Your task to perform on an android device: toggle airplane mode Image 0: 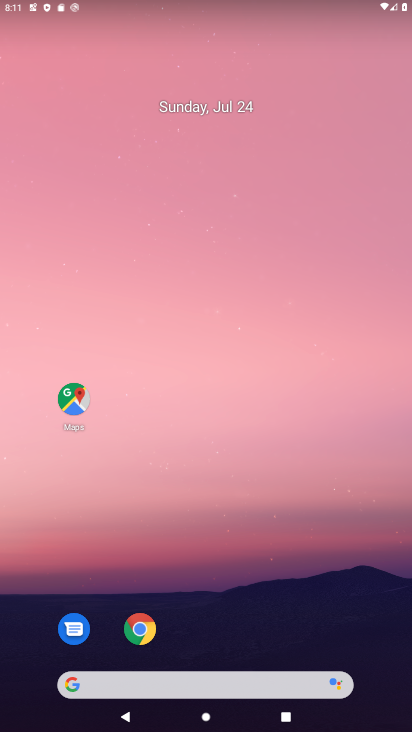
Step 0: drag from (254, 692) to (352, 145)
Your task to perform on an android device: toggle airplane mode Image 1: 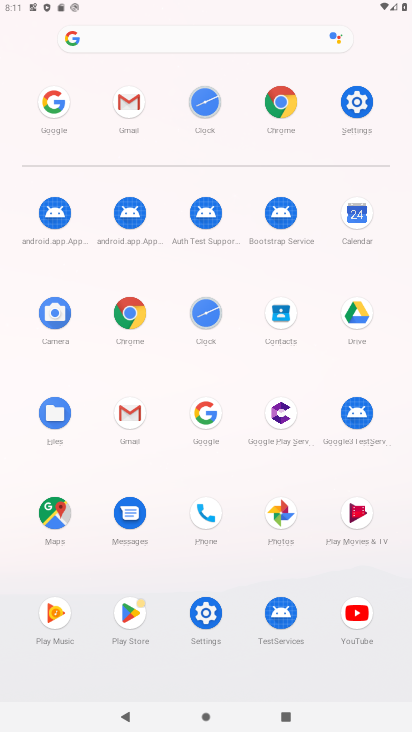
Step 1: click (347, 119)
Your task to perform on an android device: toggle airplane mode Image 2: 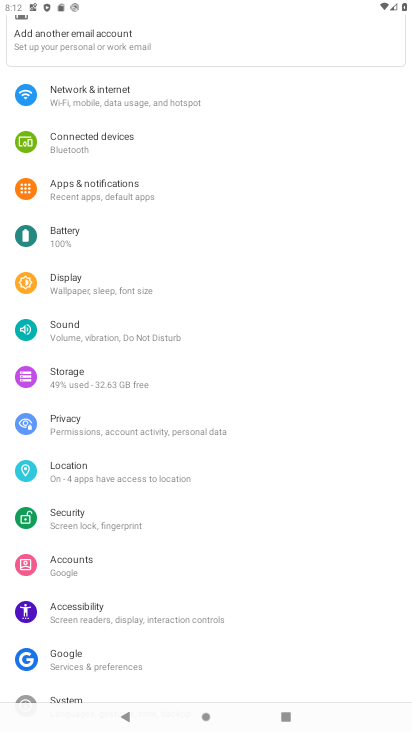
Step 2: drag from (161, 130) to (146, 521)
Your task to perform on an android device: toggle airplane mode Image 3: 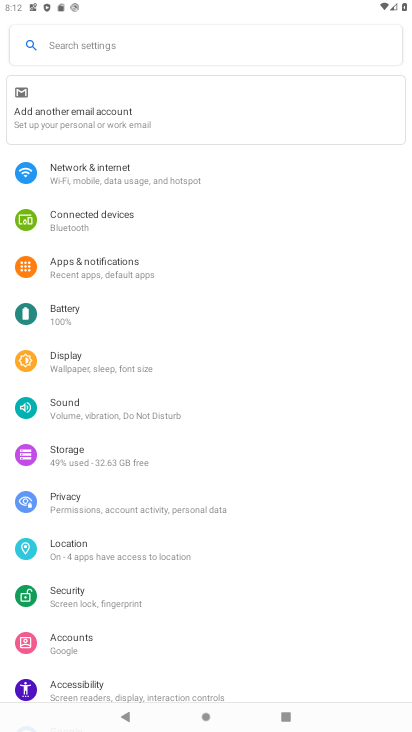
Step 3: click (205, 178)
Your task to perform on an android device: toggle airplane mode Image 4: 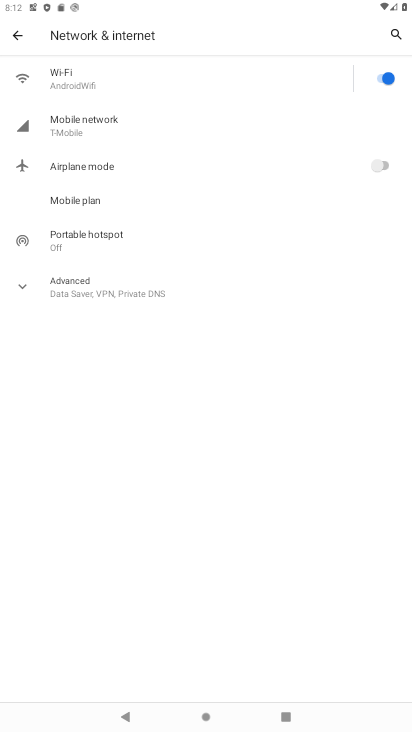
Step 4: click (390, 161)
Your task to perform on an android device: toggle airplane mode Image 5: 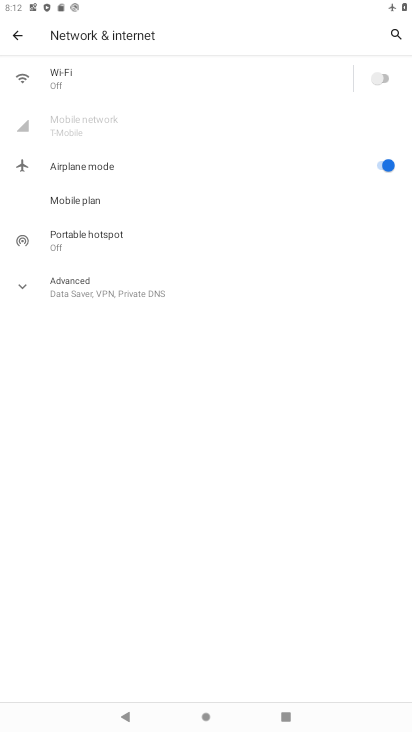
Step 5: task complete